Your task to perform on an android device: toggle priority inbox in the gmail app Image 0: 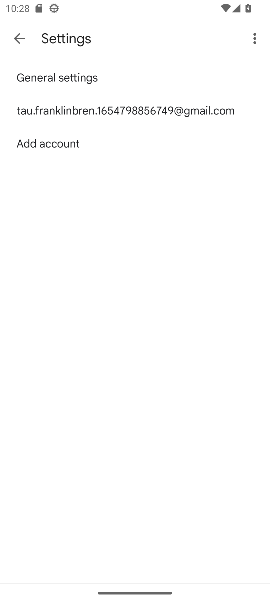
Step 0: press home button
Your task to perform on an android device: toggle priority inbox in the gmail app Image 1: 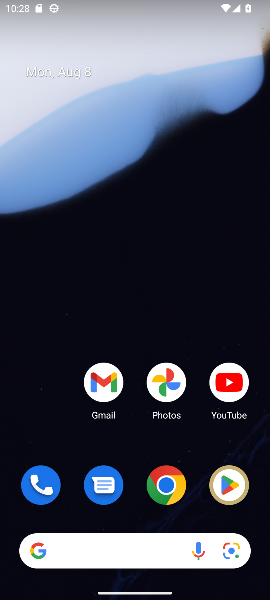
Step 1: click (104, 378)
Your task to perform on an android device: toggle priority inbox in the gmail app Image 2: 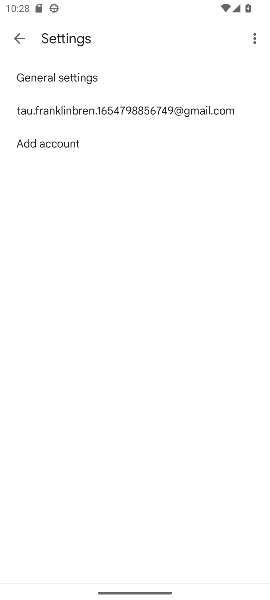
Step 2: click (17, 38)
Your task to perform on an android device: toggle priority inbox in the gmail app Image 3: 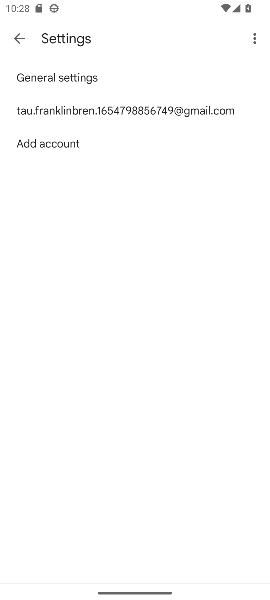
Step 3: click (17, 38)
Your task to perform on an android device: toggle priority inbox in the gmail app Image 4: 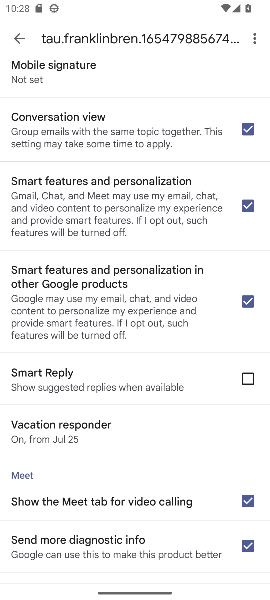
Step 4: drag from (150, 149) to (121, 534)
Your task to perform on an android device: toggle priority inbox in the gmail app Image 5: 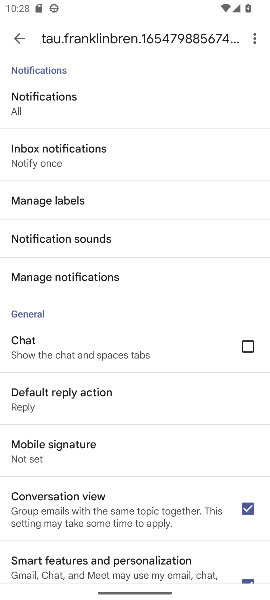
Step 5: drag from (124, 147) to (111, 571)
Your task to perform on an android device: toggle priority inbox in the gmail app Image 6: 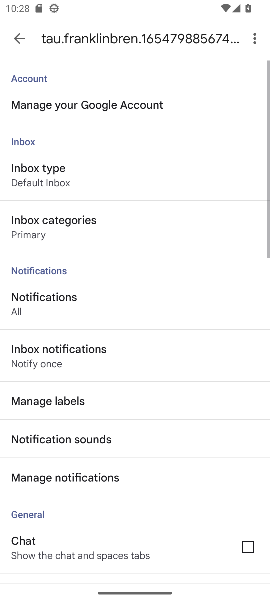
Step 6: click (47, 171)
Your task to perform on an android device: toggle priority inbox in the gmail app Image 7: 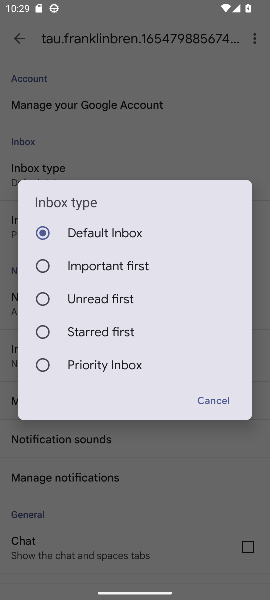
Step 7: click (128, 358)
Your task to perform on an android device: toggle priority inbox in the gmail app Image 8: 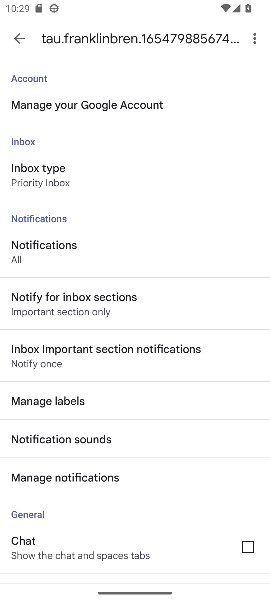
Step 8: task complete